Your task to perform on an android device: empty trash in google photos Image 0: 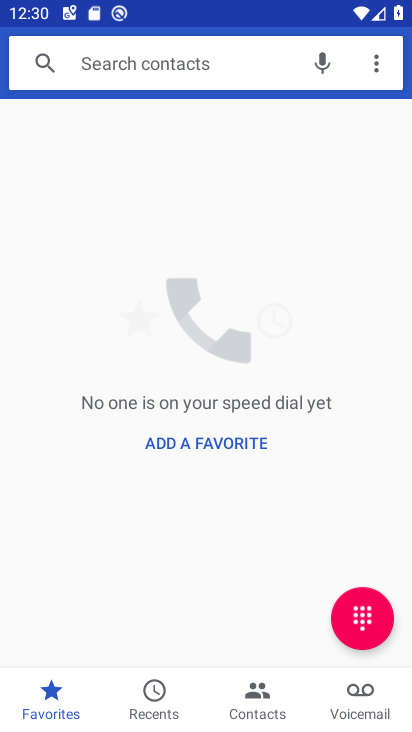
Step 0: press home button
Your task to perform on an android device: empty trash in google photos Image 1: 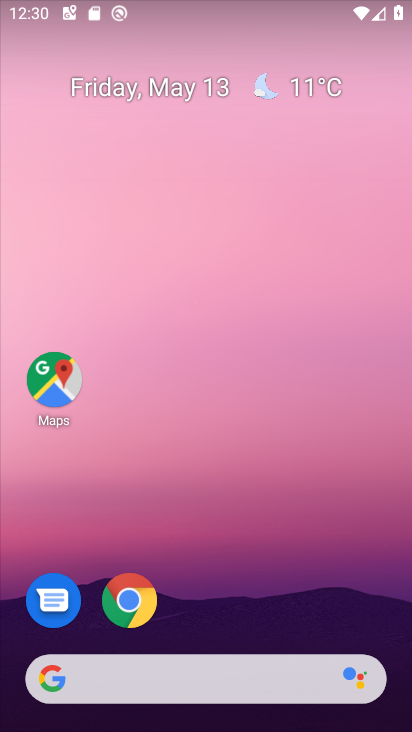
Step 1: drag from (203, 571) to (259, 142)
Your task to perform on an android device: empty trash in google photos Image 2: 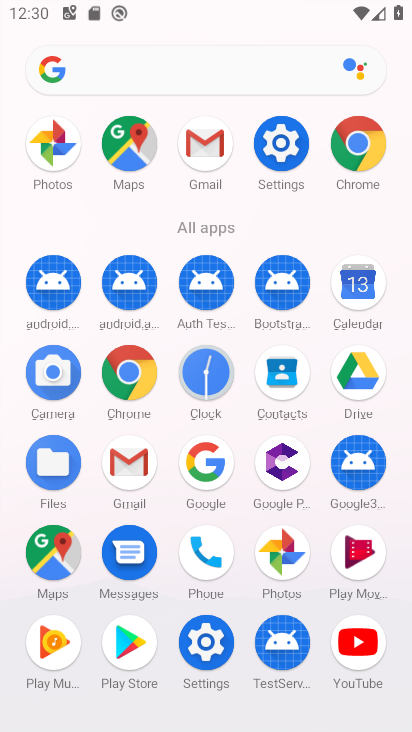
Step 2: click (65, 144)
Your task to perform on an android device: empty trash in google photos Image 3: 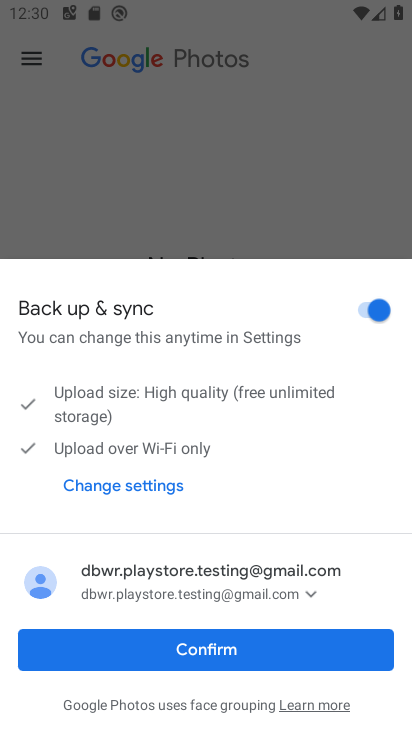
Step 3: click (204, 659)
Your task to perform on an android device: empty trash in google photos Image 4: 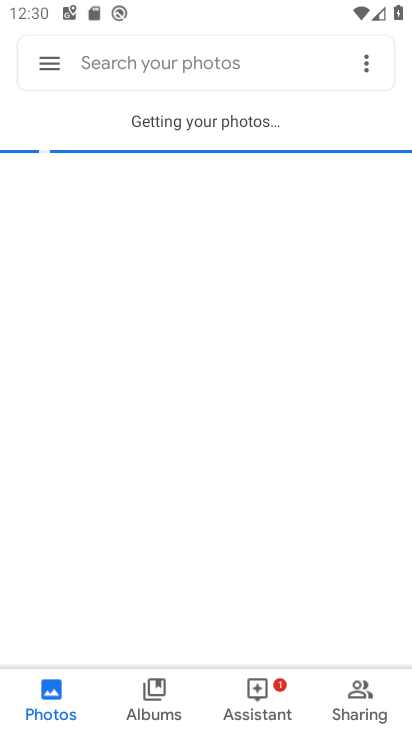
Step 4: click (45, 59)
Your task to perform on an android device: empty trash in google photos Image 5: 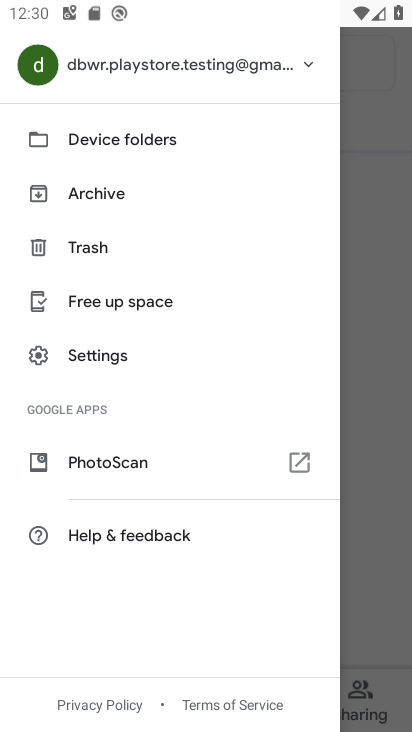
Step 5: click (87, 246)
Your task to perform on an android device: empty trash in google photos Image 6: 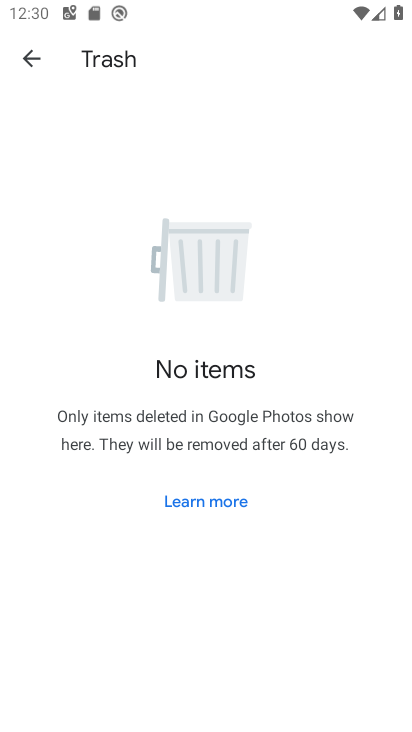
Step 6: task complete